Your task to perform on an android device: find photos in the google photos app Image 0: 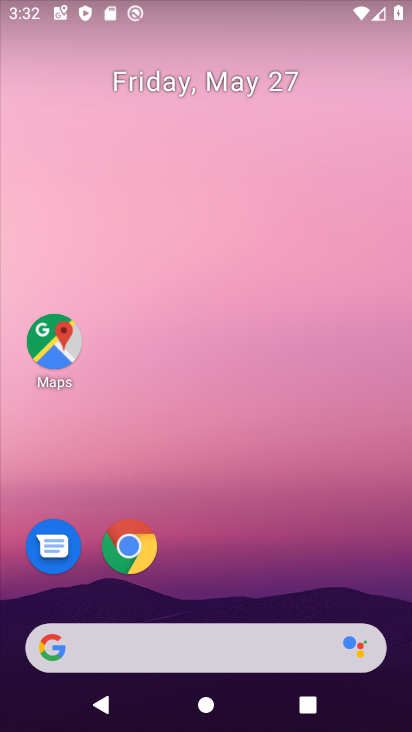
Step 0: drag from (394, 632) to (373, 105)
Your task to perform on an android device: find photos in the google photos app Image 1: 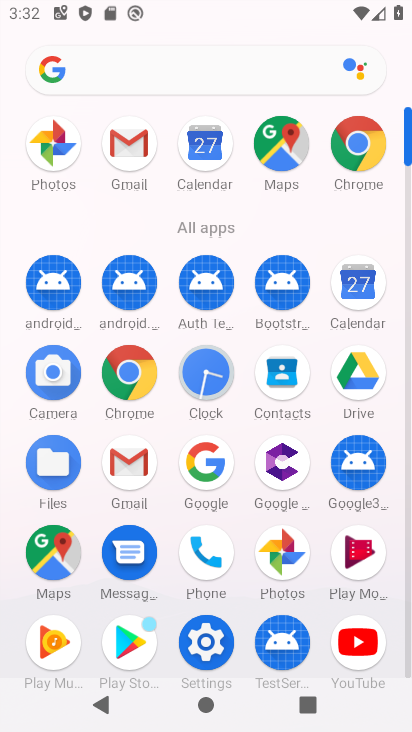
Step 1: click (273, 557)
Your task to perform on an android device: find photos in the google photos app Image 2: 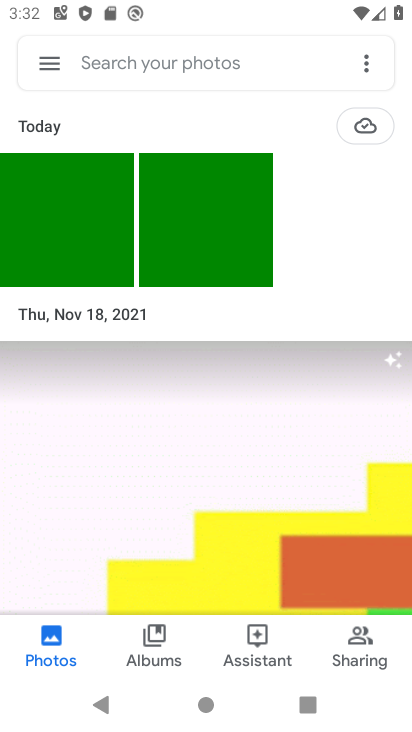
Step 2: click (114, 253)
Your task to perform on an android device: find photos in the google photos app Image 3: 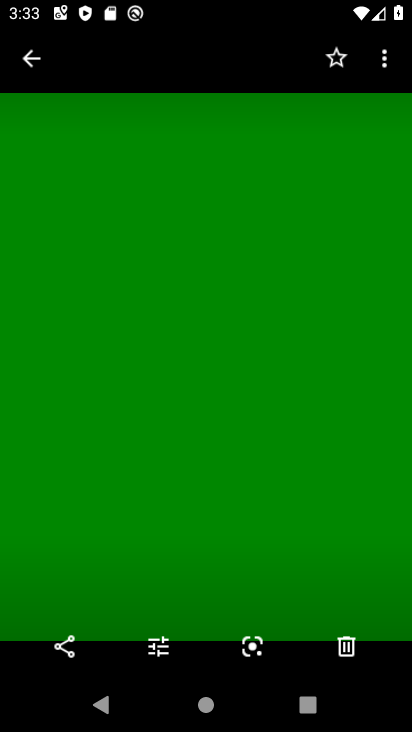
Step 3: click (394, 432)
Your task to perform on an android device: find photos in the google photos app Image 4: 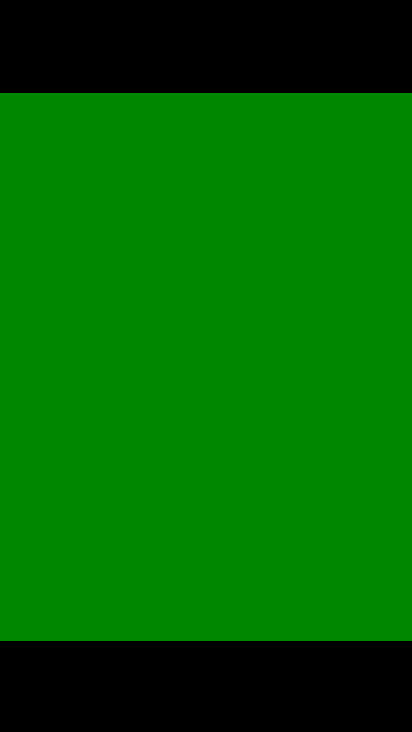
Step 4: click (395, 409)
Your task to perform on an android device: find photos in the google photos app Image 5: 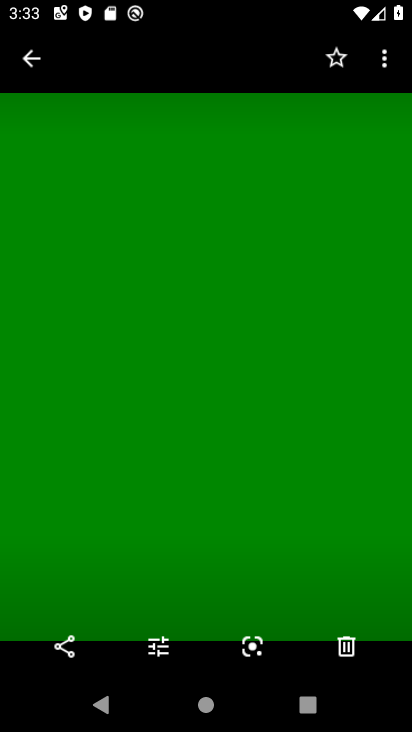
Step 5: click (399, 409)
Your task to perform on an android device: find photos in the google photos app Image 6: 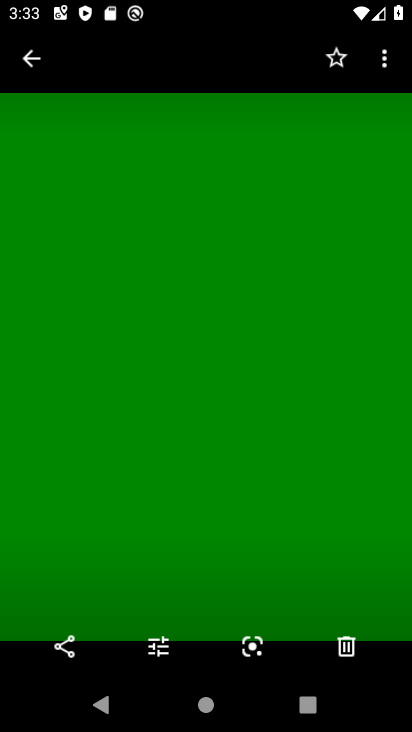
Step 6: click (22, 57)
Your task to perform on an android device: find photos in the google photos app Image 7: 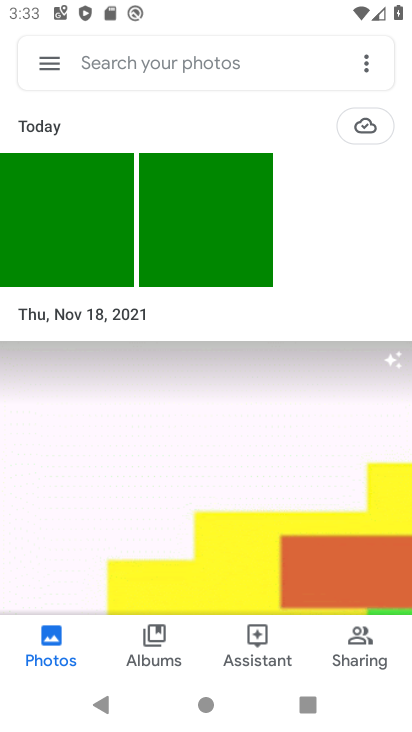
Step 7: click (190, 268)
Your task to perform on an android device: find photos in the google photos app Image 8: 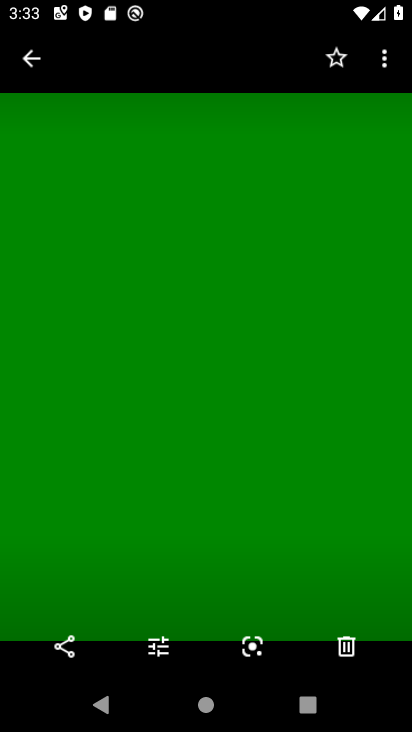
Step 8: click (25, 57)
Your task to perform on an android device: find photos in the google photos app Image 9: 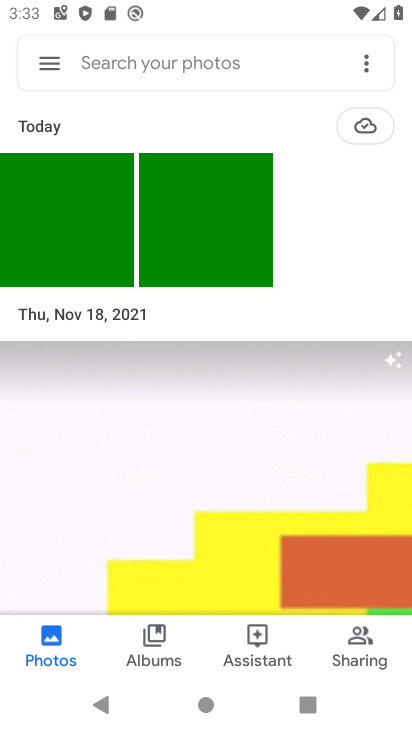
Step 9: click (152, 490)
Your task to perform on an android device: find photos in the google photos app Image 10: 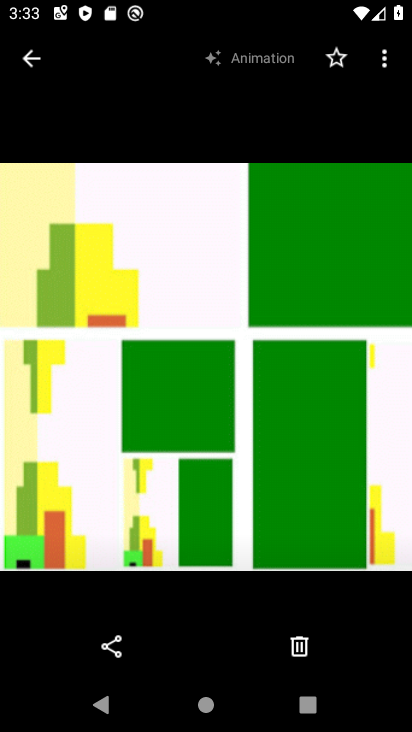
Step 10: click (30, 58)
Your task to perform on an android device: find photos in the google photos app Image 11: 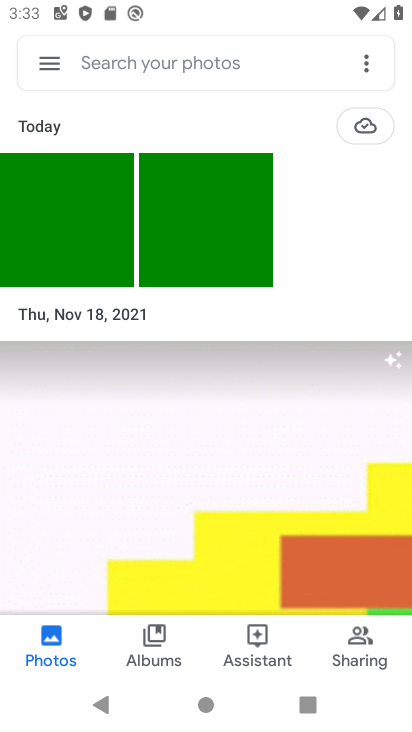
Step 11: task complete